Your task to perform on an android device: change the clock display to digital Image 0: 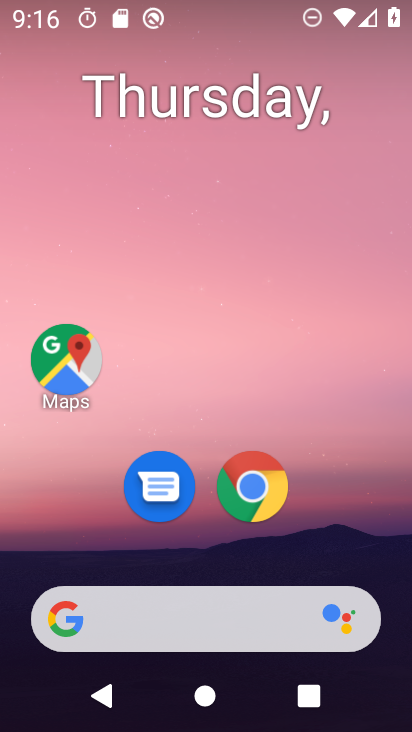
Step 0: drag from (159, 539) to (215, 18)
Your task to perform on an android device: change the clock display to digital Image 1: 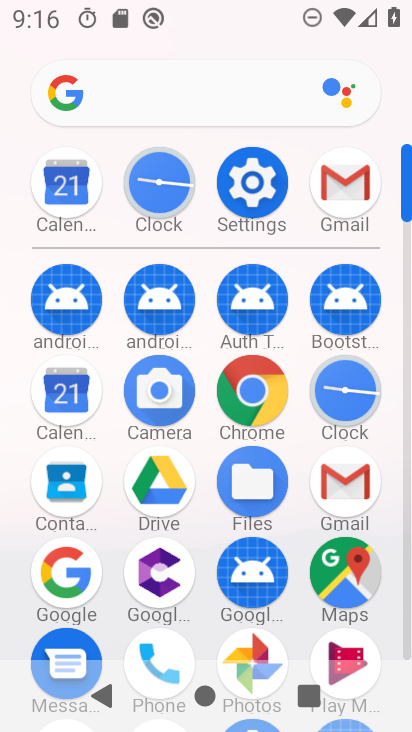
Step 1: click (156, 194)
Your task to perform on an android device: change the clock display to digital Image 2: 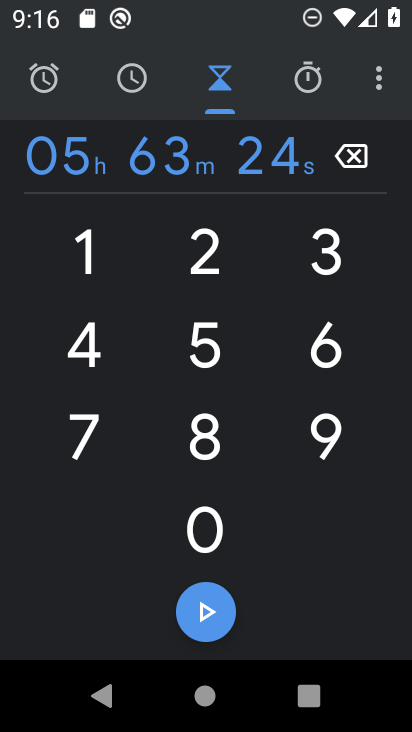
Step 2: click (377, 72)
Your task to perform on an android device: change the clock display to digital Image 3: 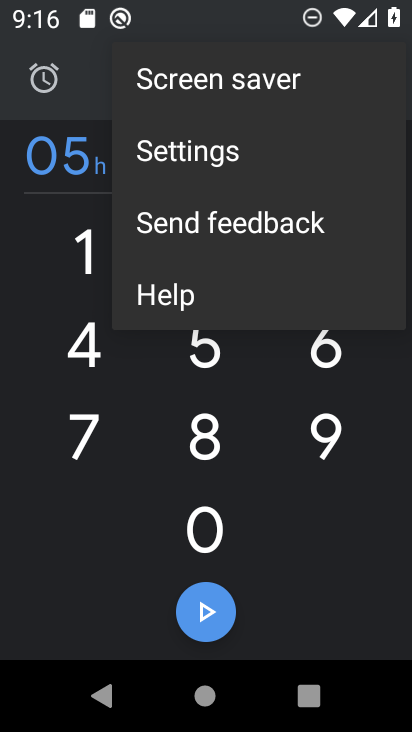
Step 3: click (252, 148)
Your task to perform on an android device: change the clock display to digital Image 4: 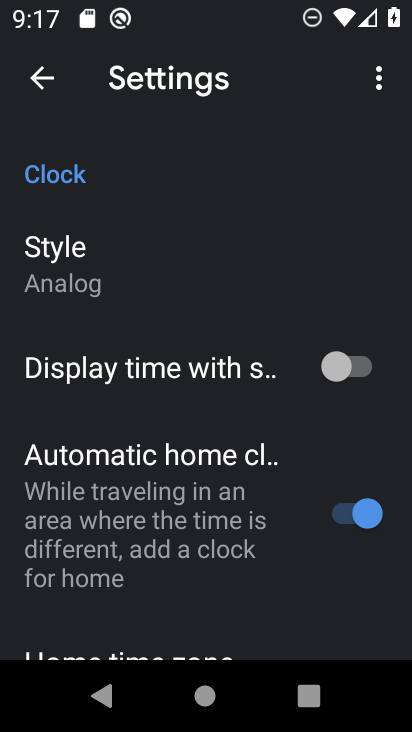
Step 4: click (160, 279)
Your task to perform on an android device: change the clock display to digital Image 5: 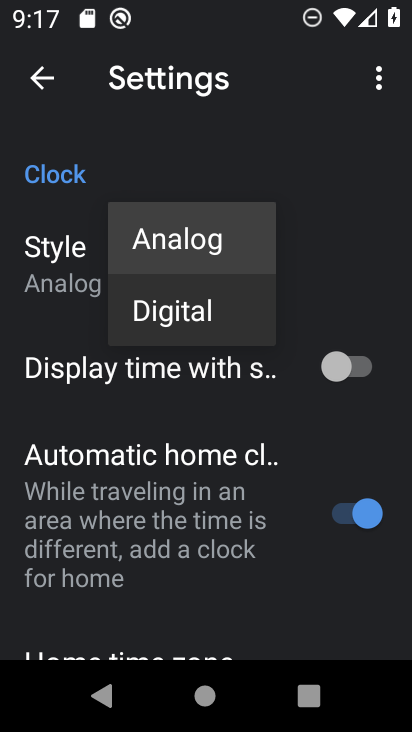
Step 5: click (150, 336)
Your task to perform on an android device: change the clock display to digital Image 6: 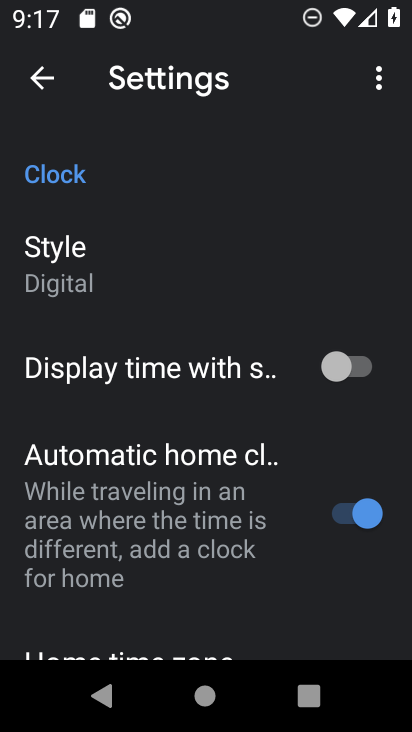
Step 6: task complete